Your task to perform on an android device: Open battery settings Image 0: 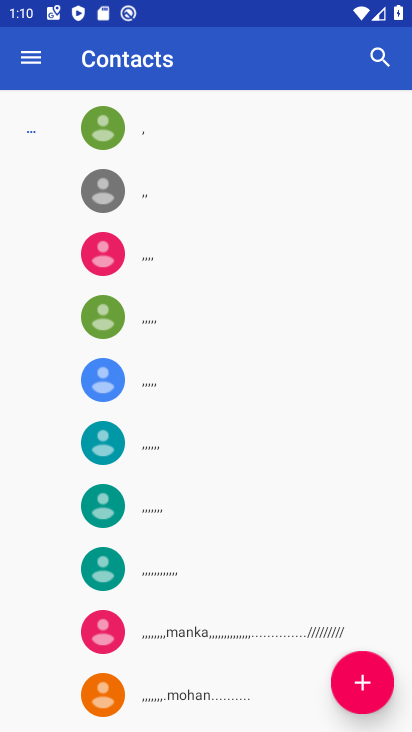
Step 0: press home button
Your task to perform on an android device: Open battery settings Image 1: 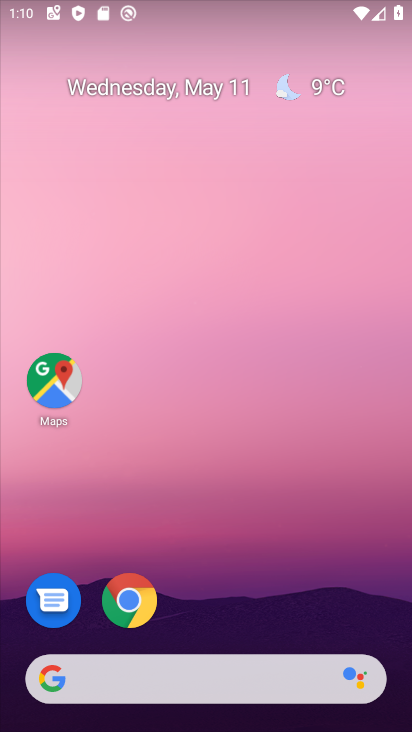
Step 1: drag from (239, 713) to (282, 157)
Your task to perform on an android device: Open battery settings Image 2: 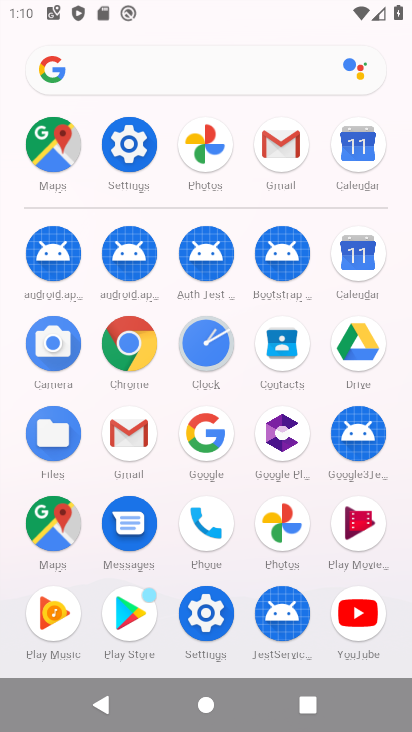
Step 2: click (128, 154)
Your task to perform on an android device: Open battery settings Image 3: 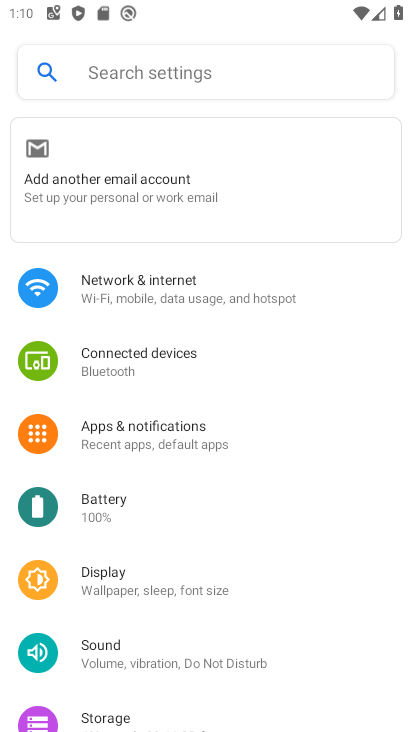
Step 3: click (154, 497)
Your task to perform on an android device: Open battery settings Image 4: 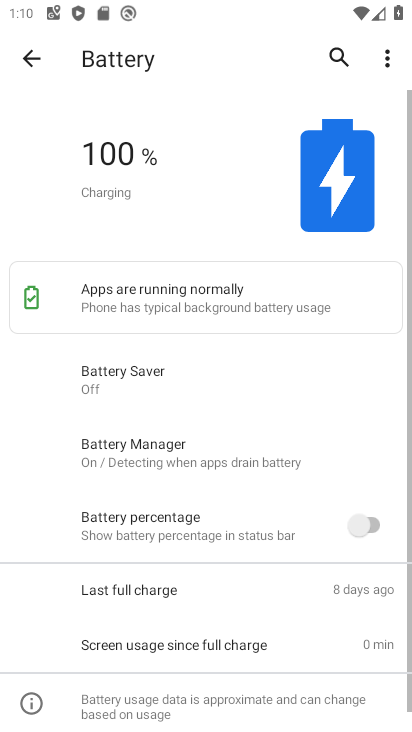
Step 4: task complete